Your task to perform on an android device: Do I have any events today? Image 0: 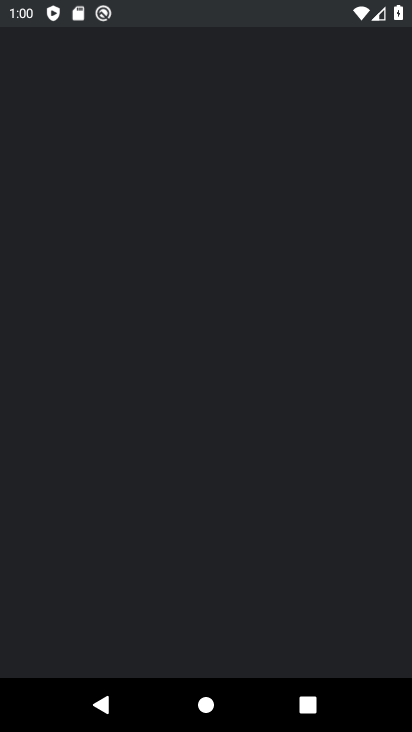
Step 0: drag from (222, 542) to (276, 234)
Your task to perform on an android device: Do I have any events today? Image 1: 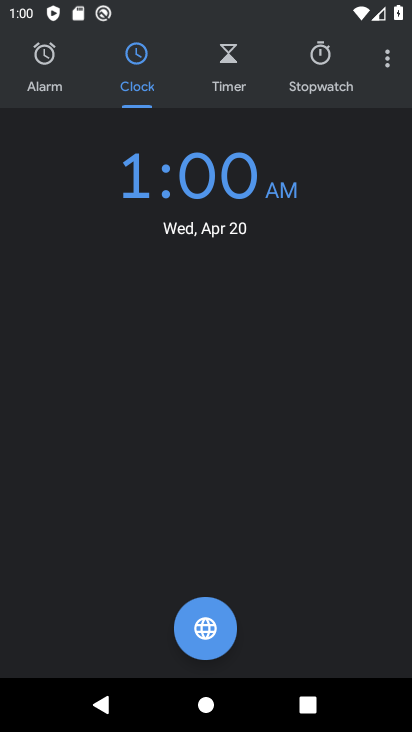
Step 1: press back button
Your task to perform on an android device: Do I have any events today? Image 2: 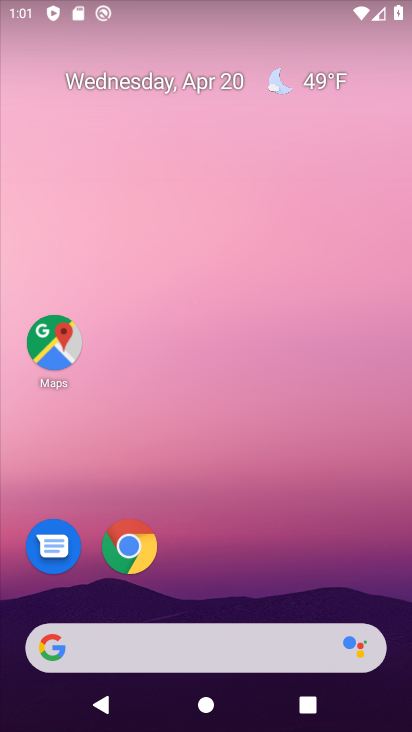
Step 2: drag from (230, 544) to (232, 66)
Your task to perform on an android device: Do I have any events today? Image 3: 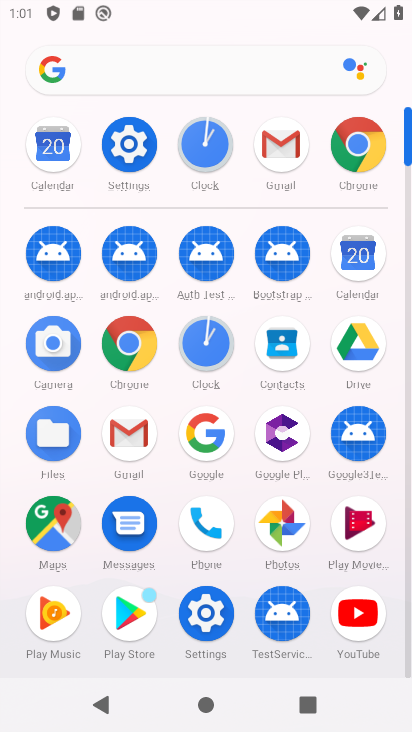
Step 3: click (362, 254)
Your task to perform on an android device: Do I have any events today? Image 4: 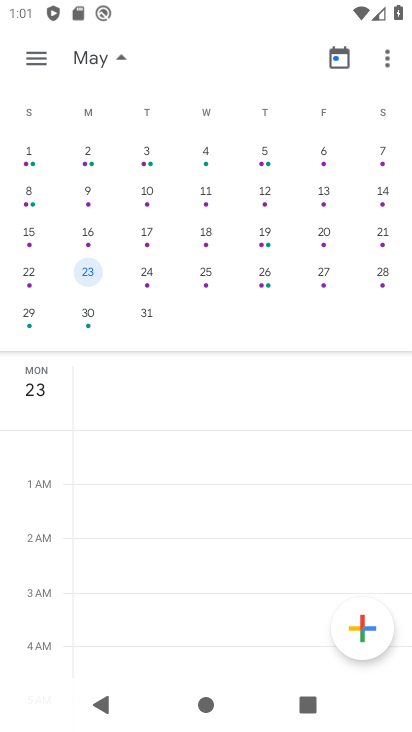
Step 4: drag from (60, 212) to (379, 236)
Your task to perform on an android device: Do I have any events today? Image 5: 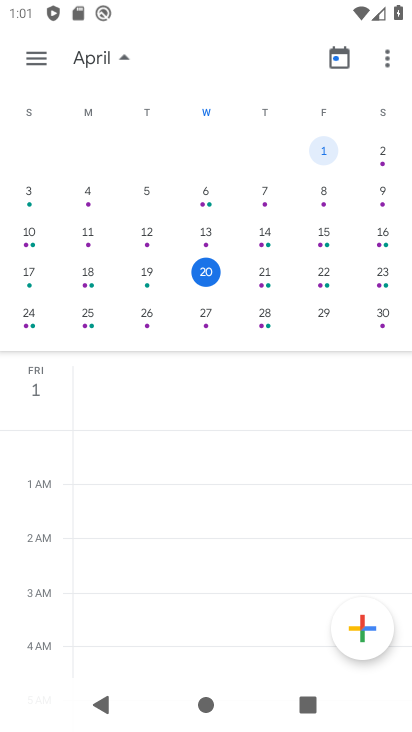
Step 5: click (42, 37)
Your task to perform on an android device: Do I have any events today? Image 6: 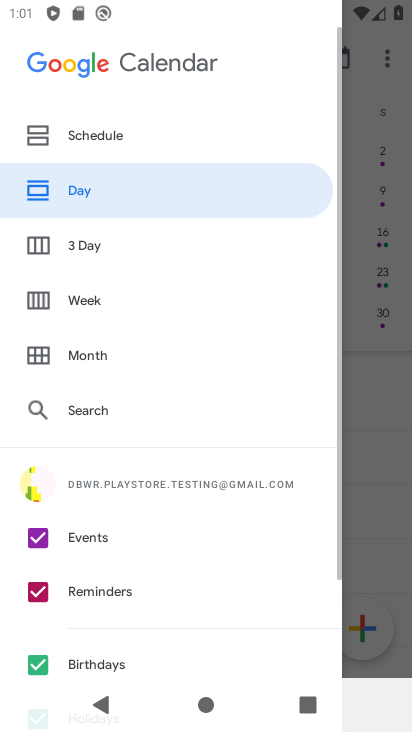
Step 6: click (98, 149)
Your task to perform on an android device: Do I have any events today? Image 7: 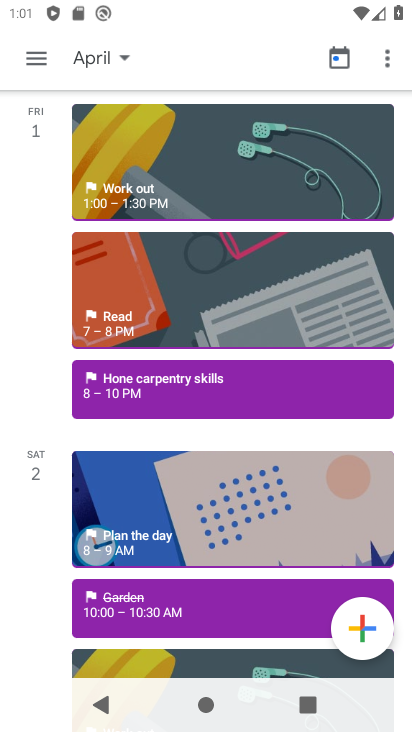
Step 7: click (99, 57)
Your task to perform on an android device: Do I have any events today? Image 8: 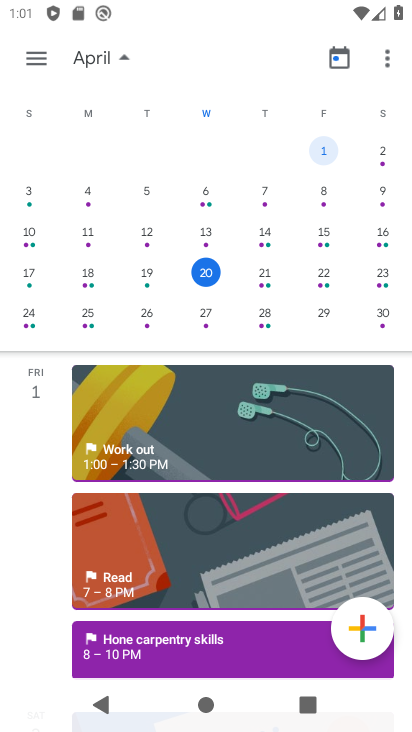
Step 8: click (217, 271)
Your task to perform on an android device: Do I have any events today? Image 9: 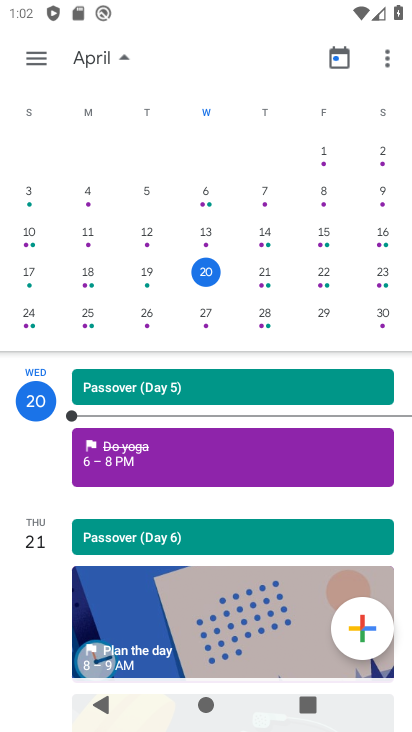
Step 9: task complete